Your task to perform on an android device: open app "Move to iOS" (install if not already installed) Image 0: 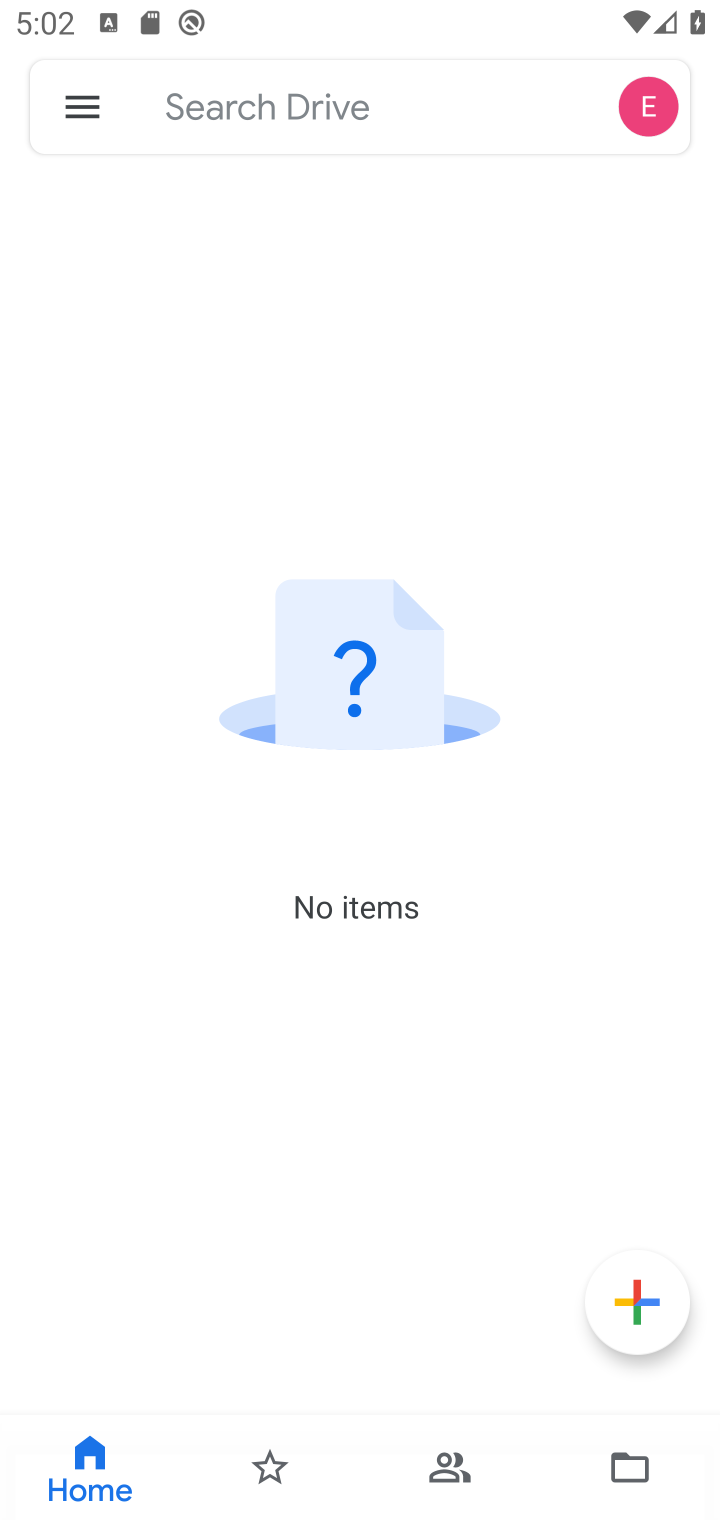
Step 0: press home button
Your task to perform on an android device: open app "Move to iOS" (install if not already installed) Image 1: 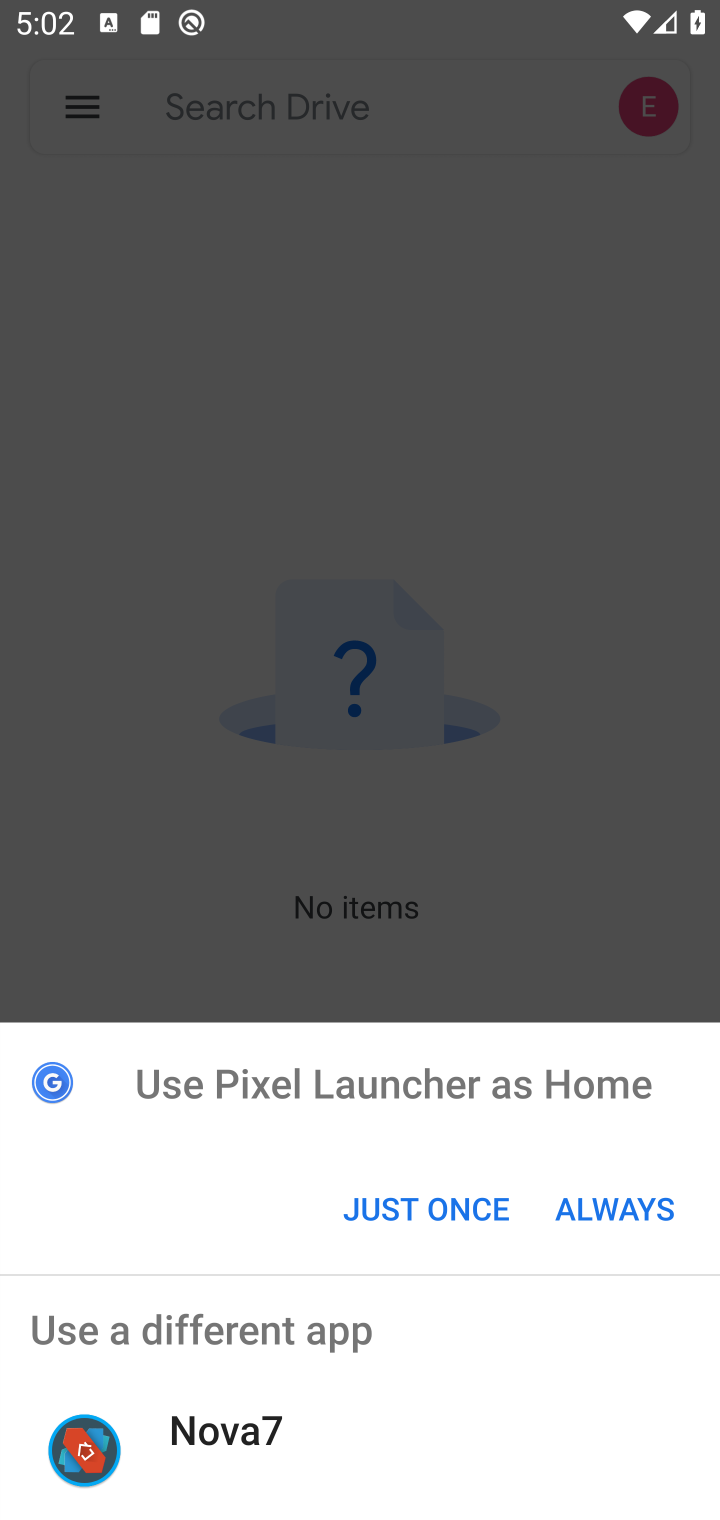
Step 1: click (480, 1211)
Your task to perform on an android device: open app "Move to iOS" (install if not already installed) Image 2: 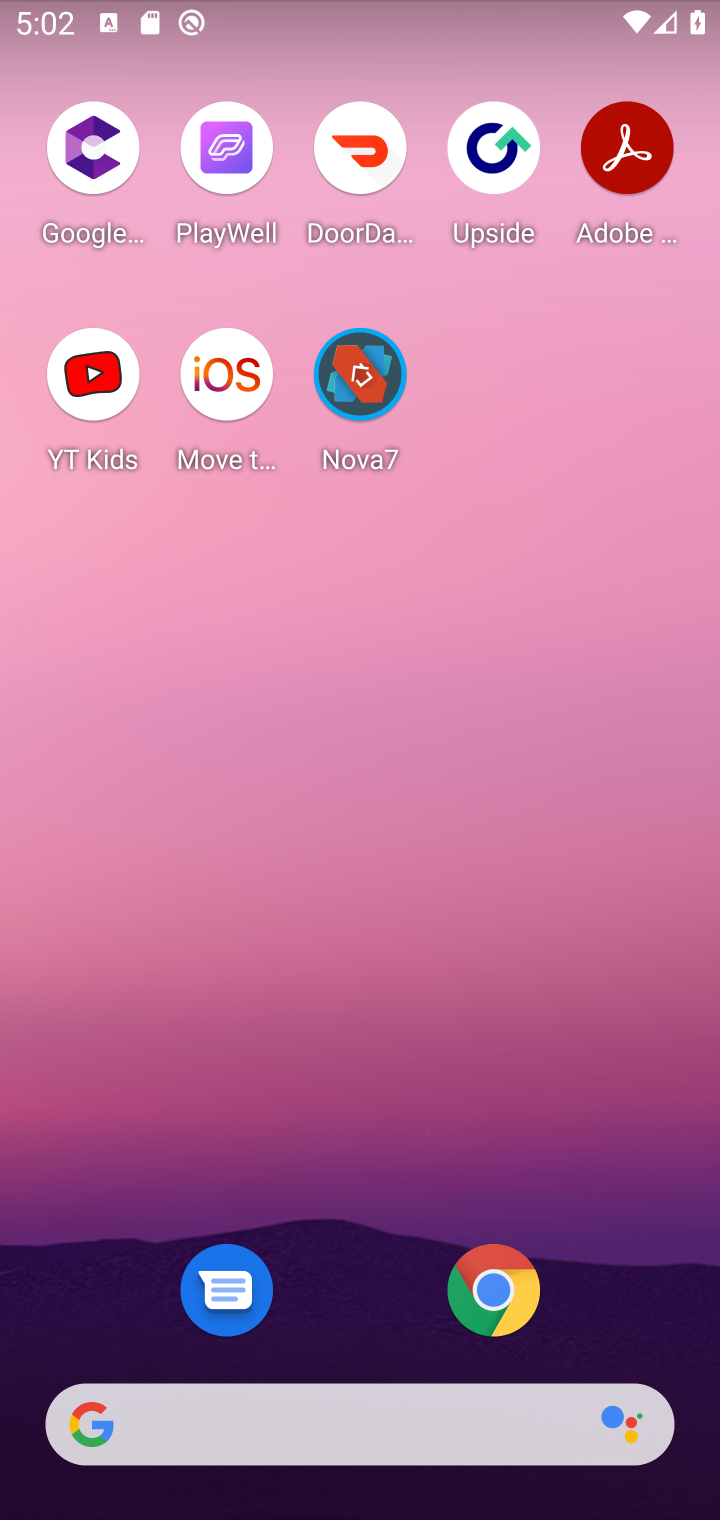
Step 2: drag from (354, 1234) to (385, 686)
Your task to perform on an android device: open app "Move to iOS" (install if not already installed) Image 3: 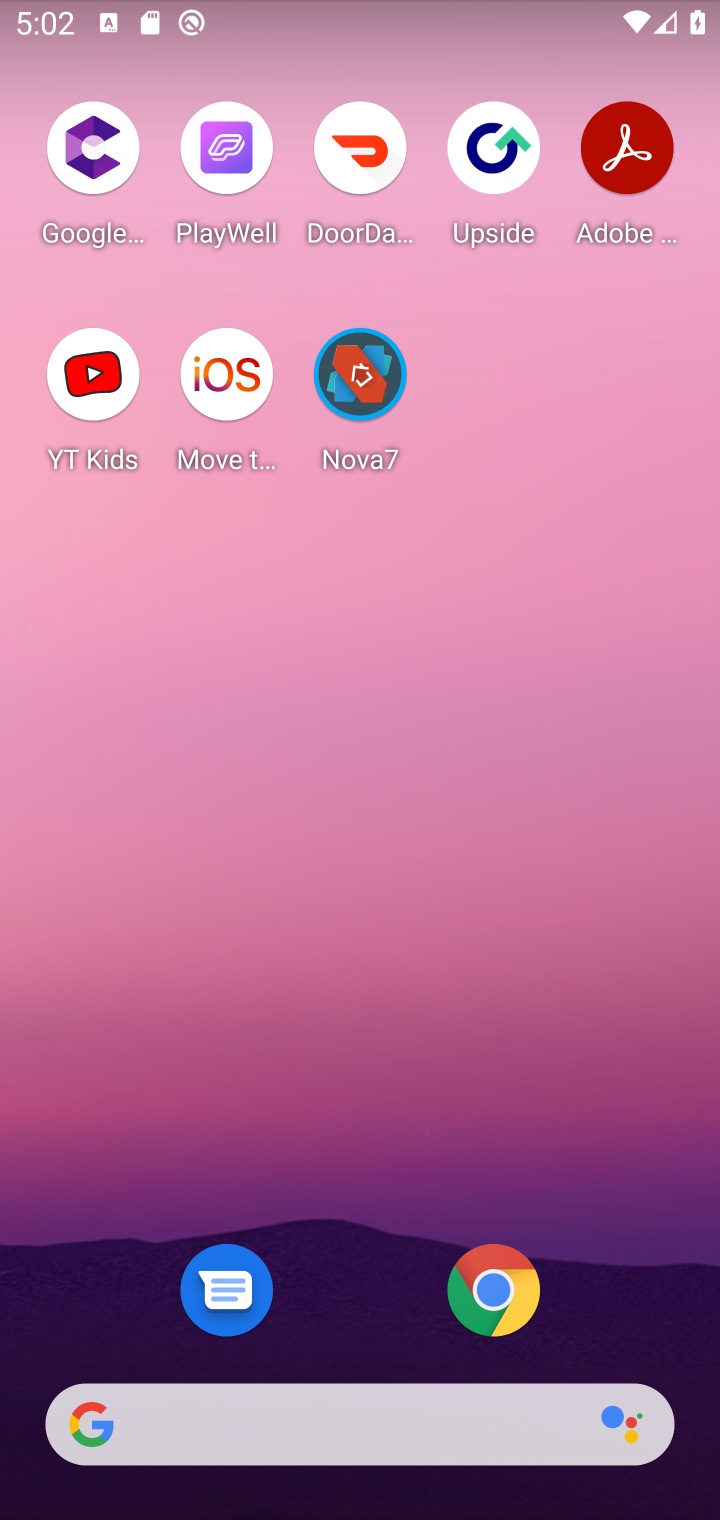
Step 3: drag from (341, 1410) to (339, 127)
Your task to perform on an android device: open app "Move to iOS" (install if not already installed) Image 4: 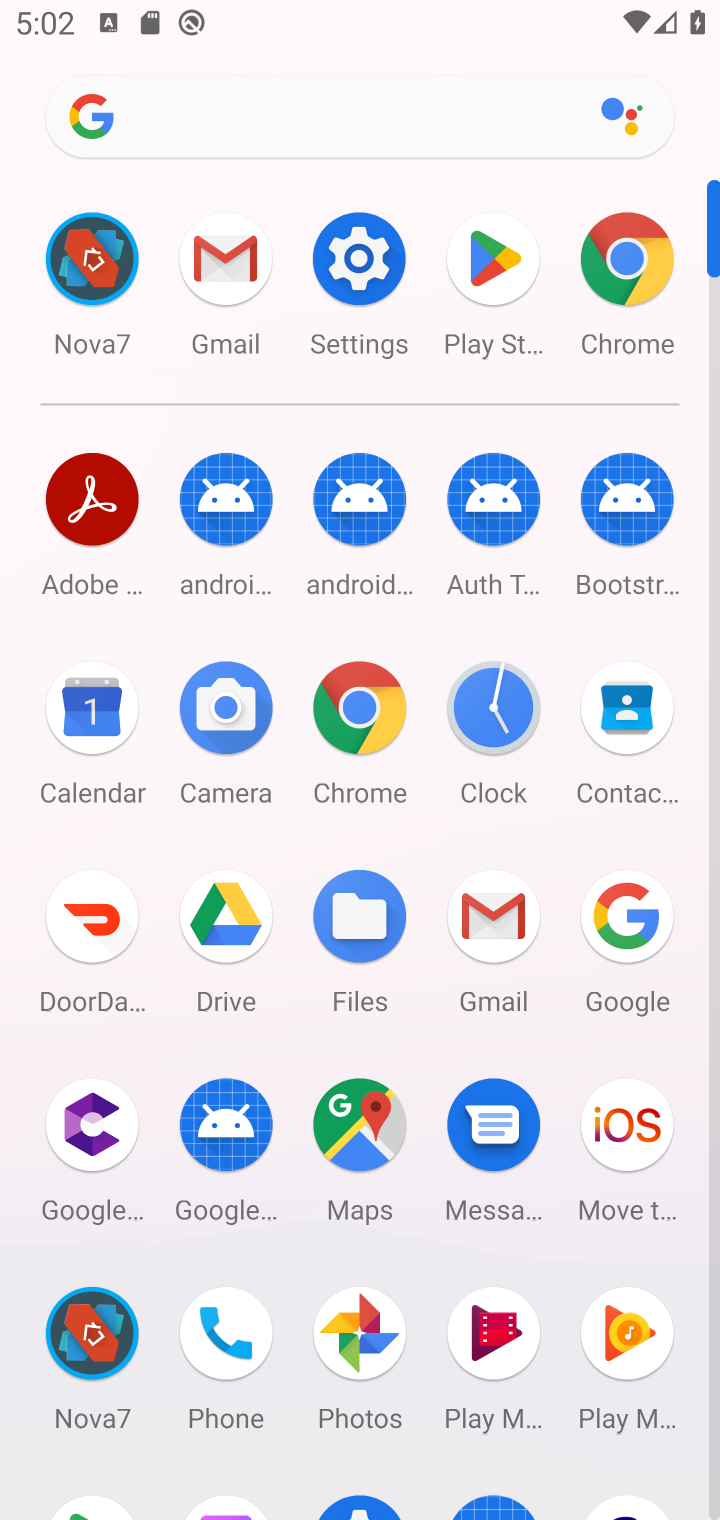
Step 4: click (502, 269)
Your task to perform on an android device: open app "Move to iOS" (install if not already installed) Image 5: 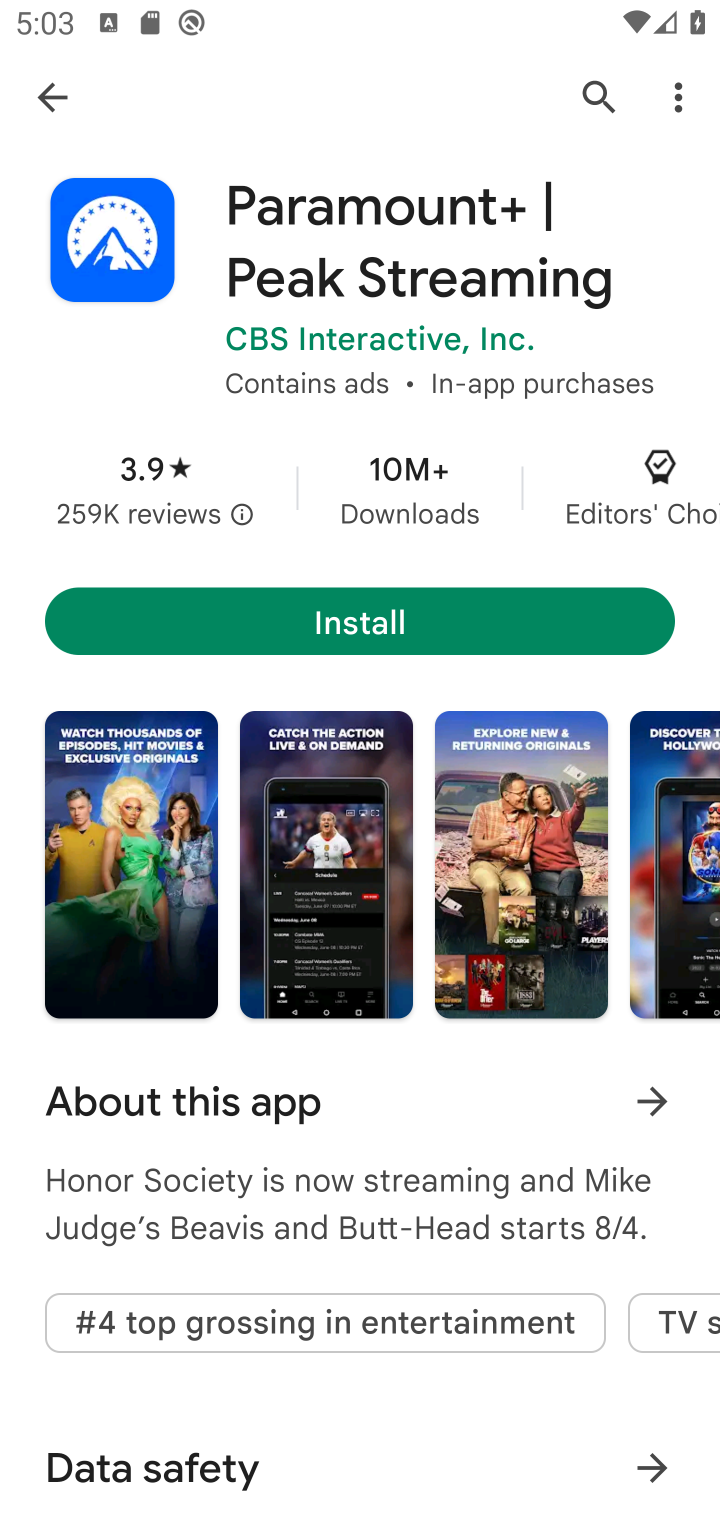
Step 5: click (350, 605)
Your task to perform on an android device: open app "Move to iOS" (install if not already installed) Image 6: 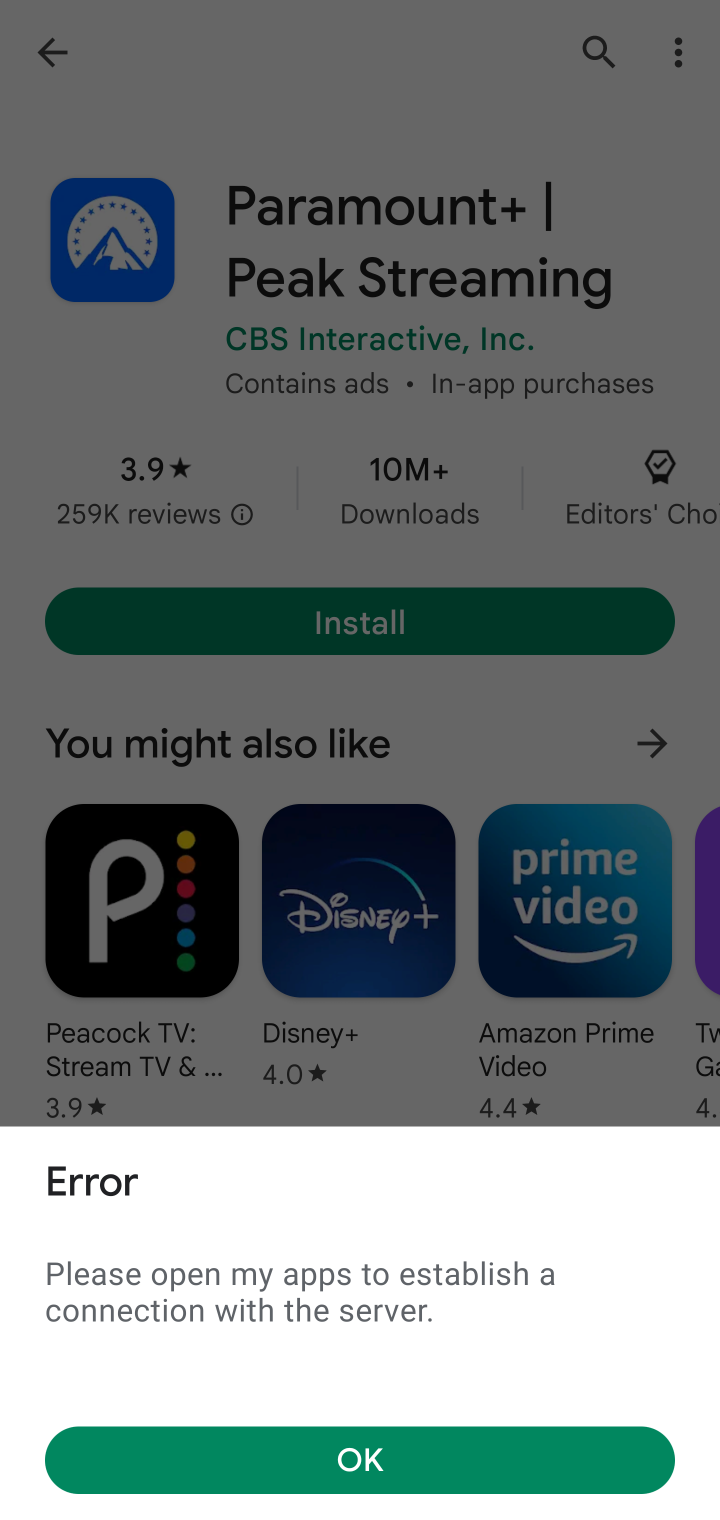
Step 6: click (346, 1456)
Your task to perform on an android device: open app "Move to iOS" (install if not already installed) Image 7: 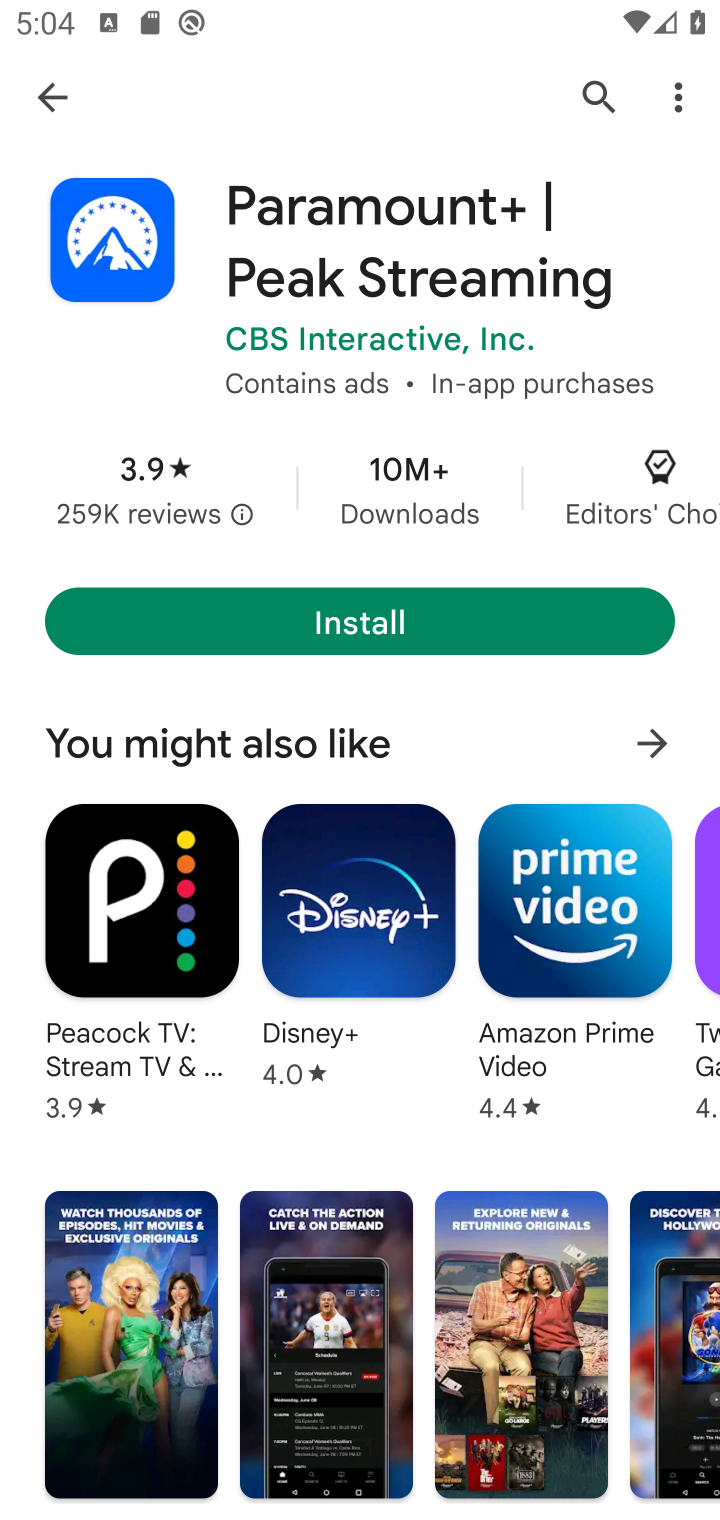
Step 7: click (593, 82)
Your task to perform on an android device: open app "Move to iOS" (install if not already installed) Image 8: 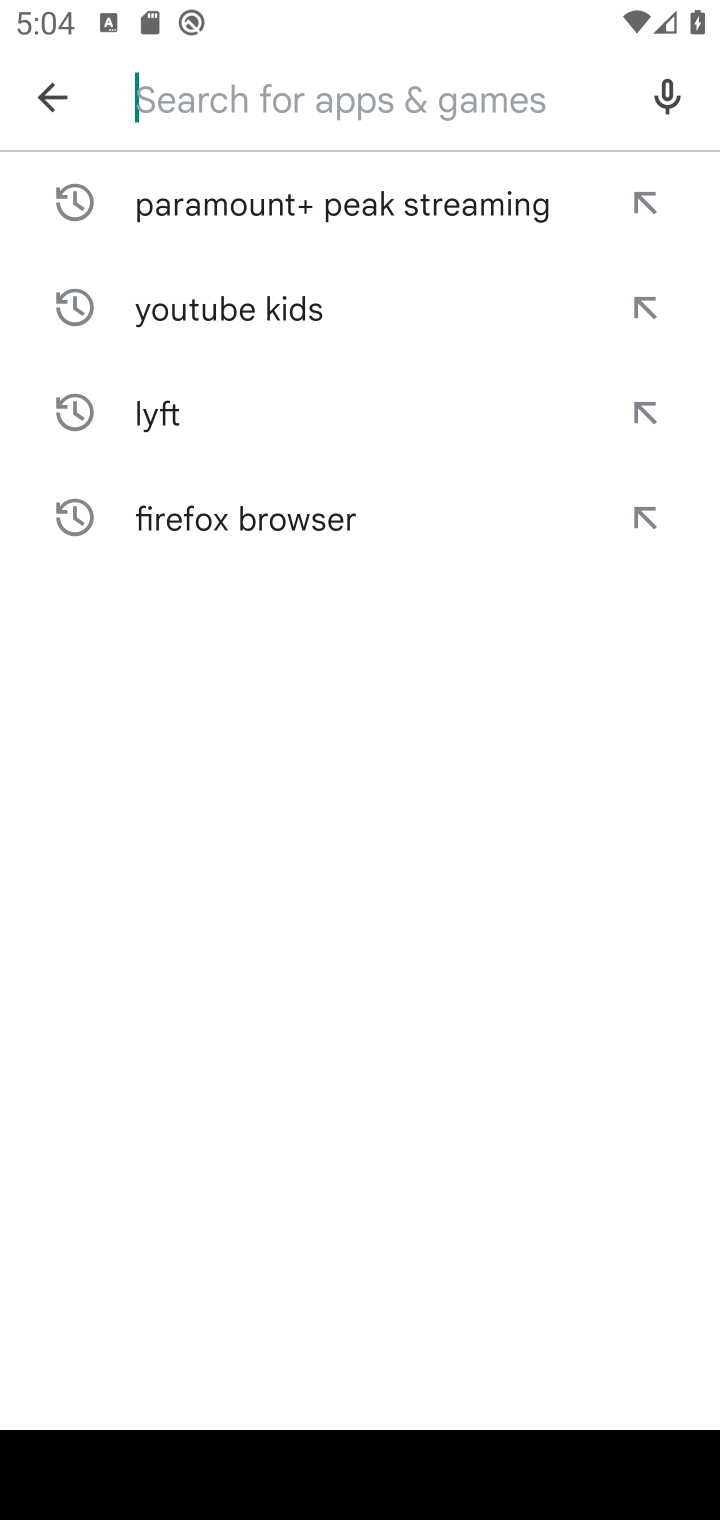
Step 8: type "move to ios"
Your task to perform on an android device: open app "Move to iOS" (install if not already installed) Image 9: 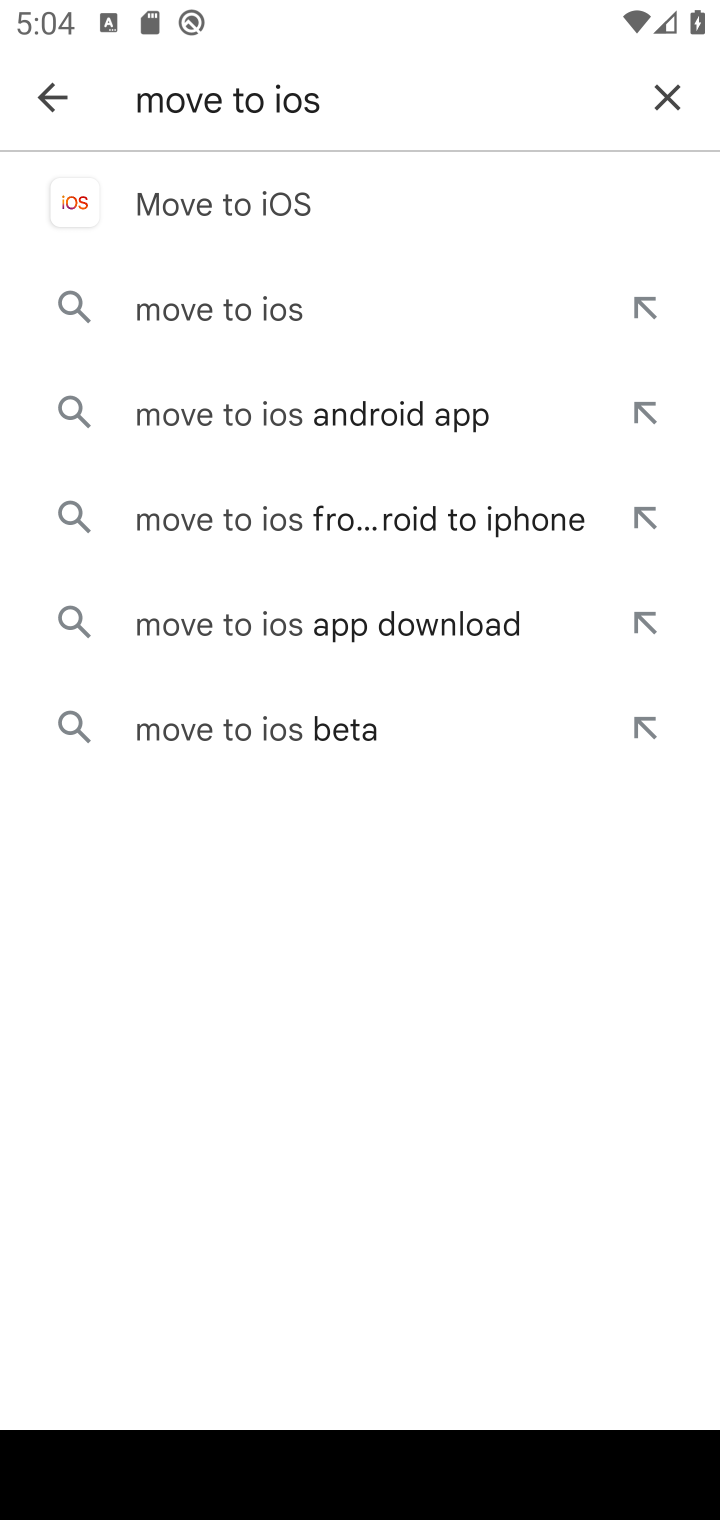
Step 9: click (300, 206)
Your task to perform on an android device: open app "Move to iOS" (install if not already installed) Image 10: 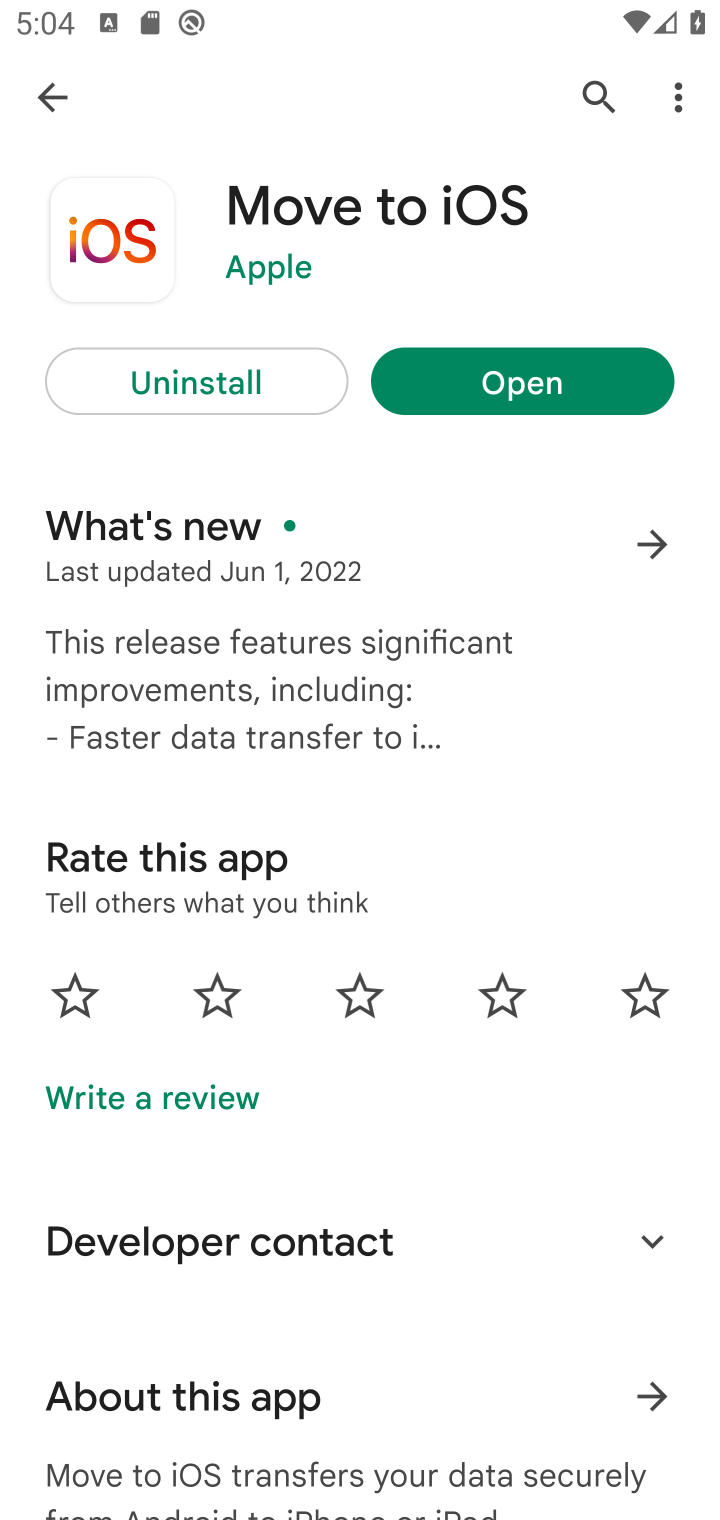
Step 10: click (519, 376)
Your task to perform on an android device: open app "Move to iOS" (install if not already installed) Image 11: 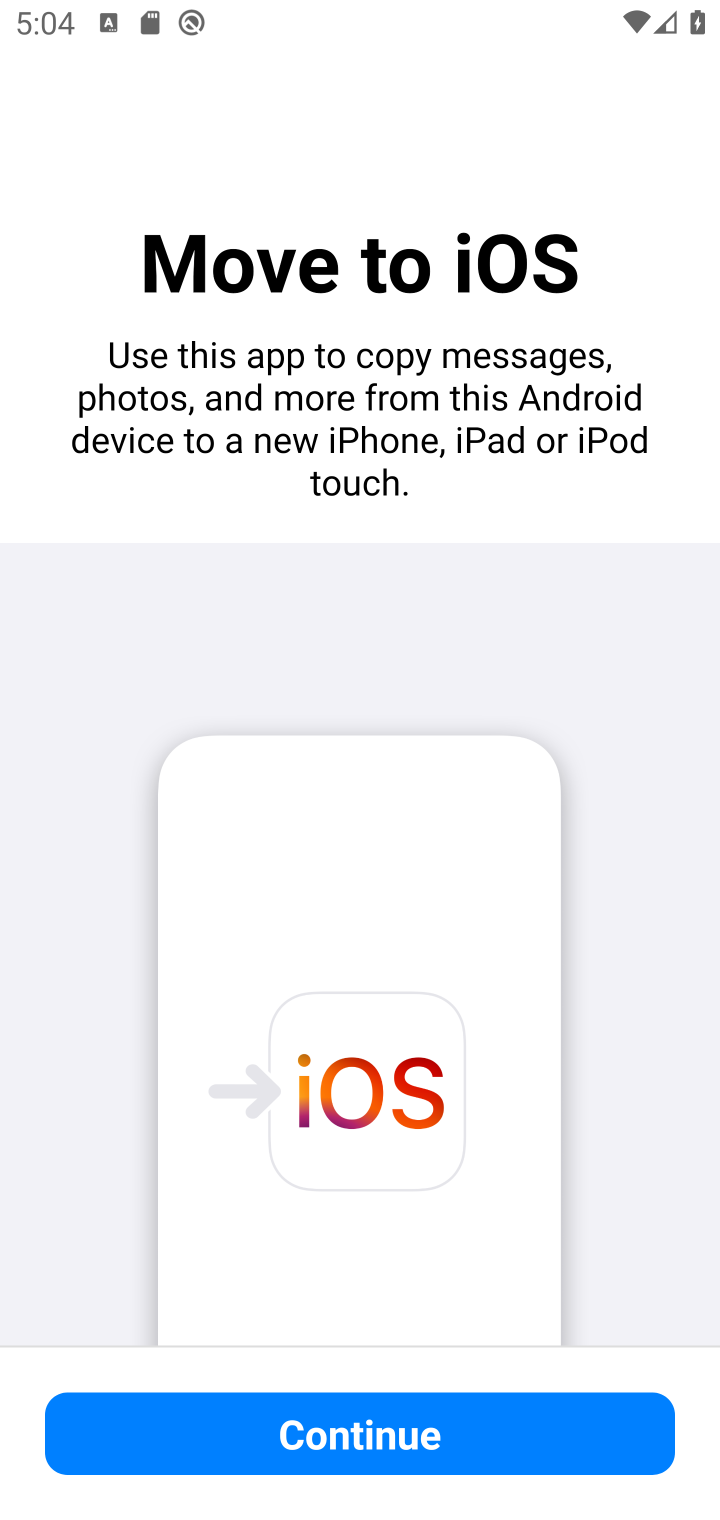
Step 11: task complete